Your task to perform on an android device: toggle notification dots Image 0: 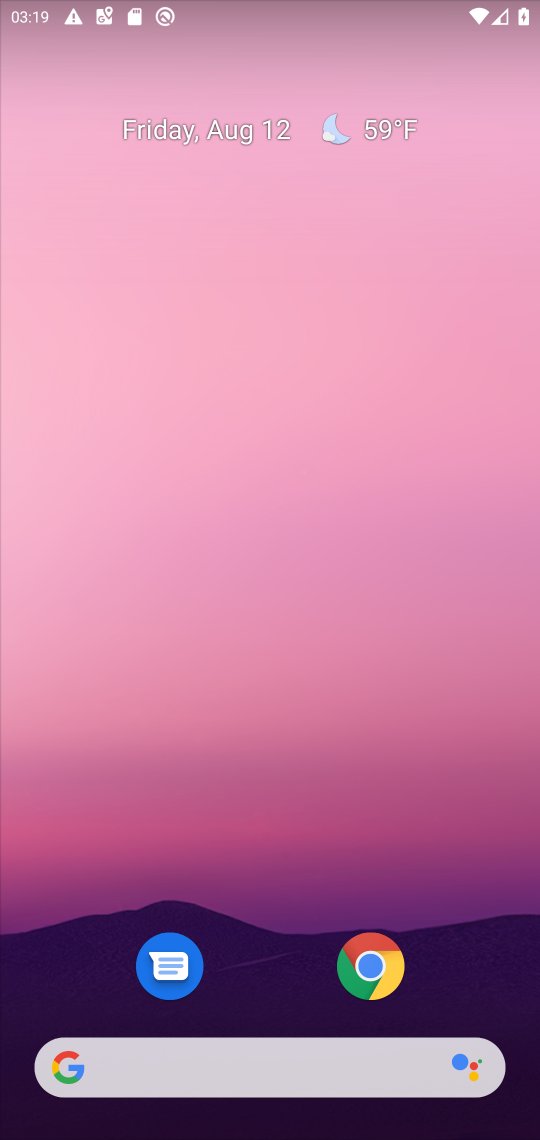
Step 0: drag from (280, 862) to (329, 14)
Your task to perform on an android device: toggle notification dots Image 1: 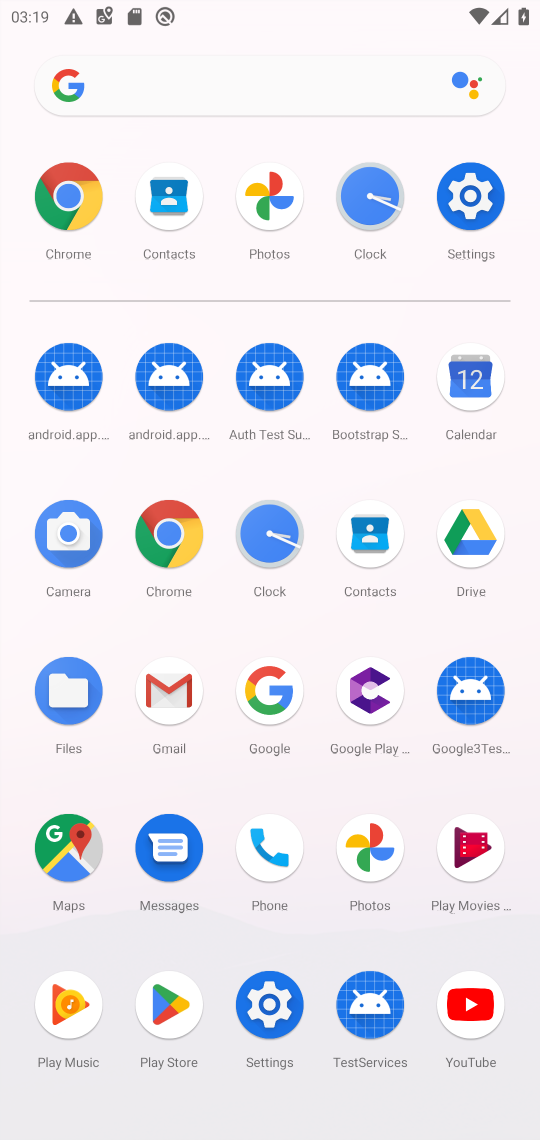
Step 1: click (284, 1008)
Your task to perform on an android device: toggle notification dots Image 2: 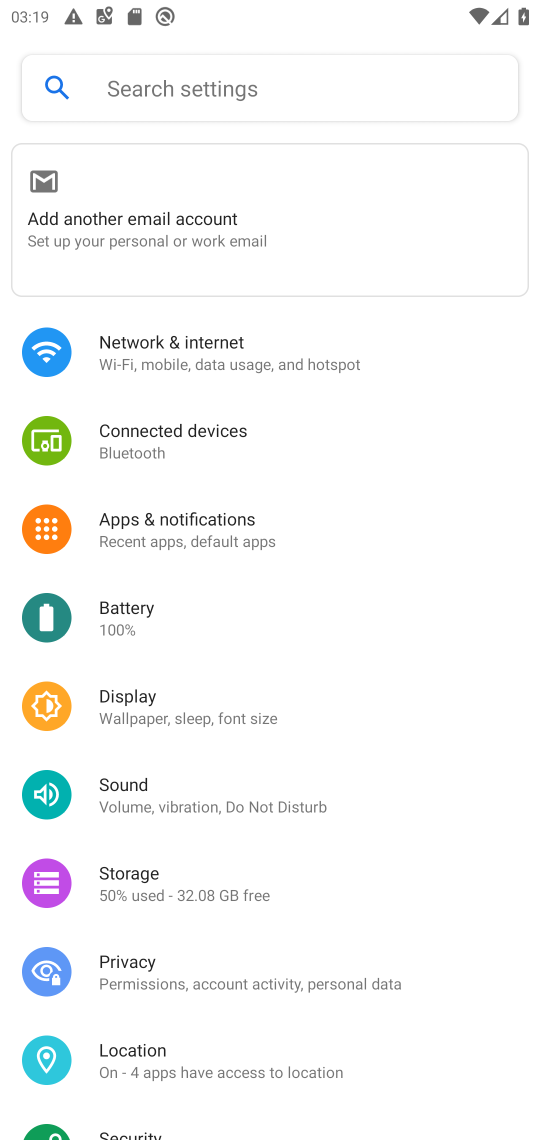
Step 2: click (212, 544)
Your task to perform on an android device: toggle notification dots Image 3: 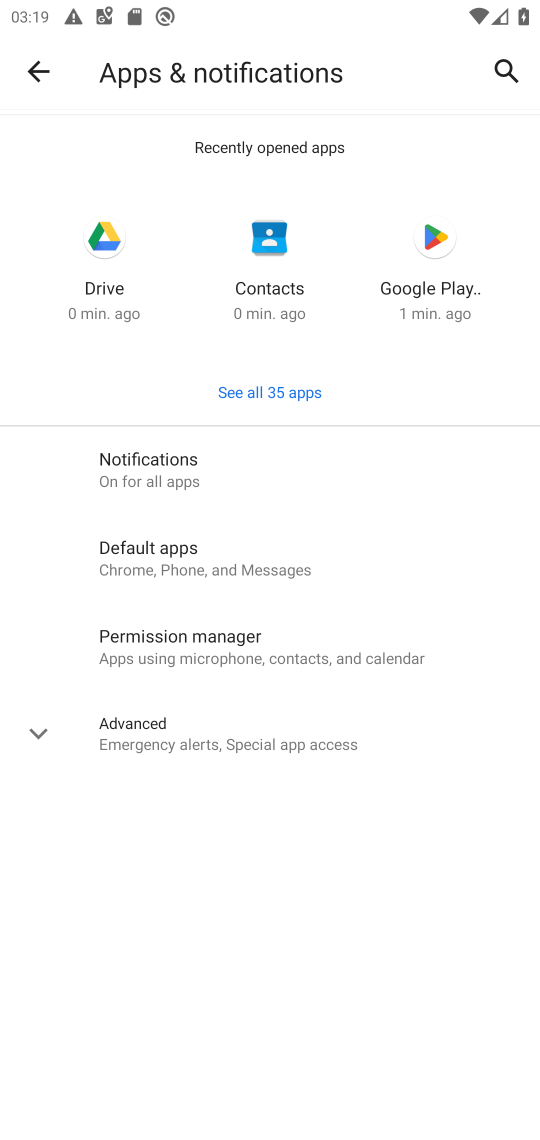
Step 3: click (161, 473)
Your task to perform on an android device: toggle notification dots Image 4: 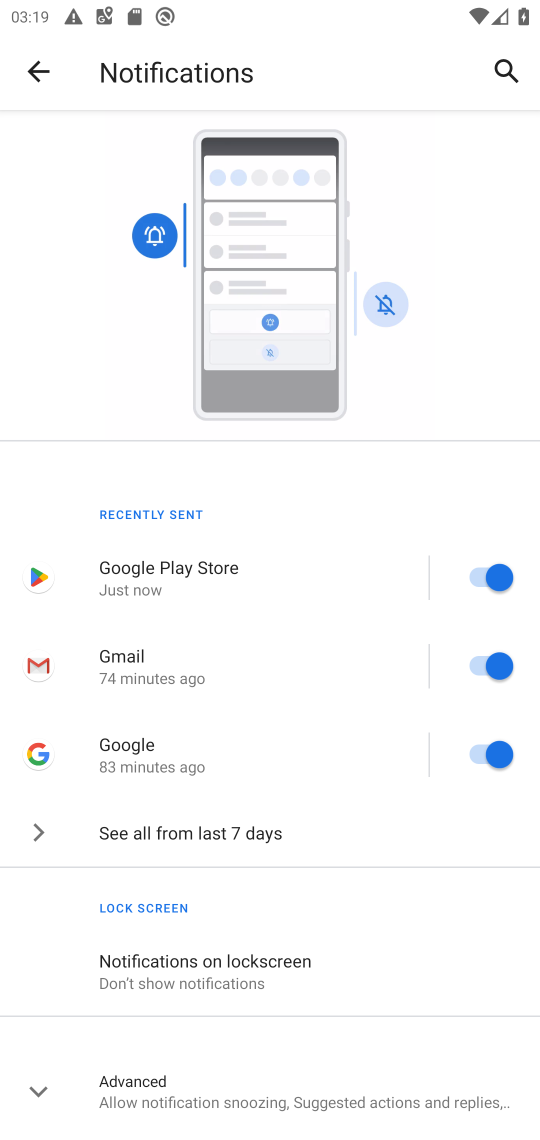
Step 4: click (164, 1075)
Your task to perform on an android device: toggle notification dots Image 5: 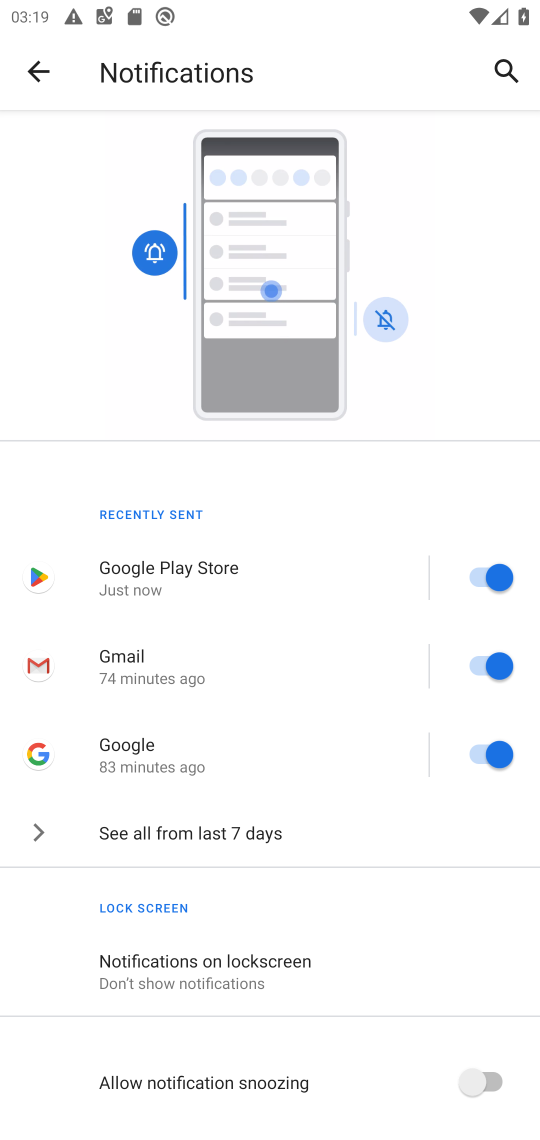
Step 5: drag from (286, 1044) to (328, 315)
Your task to perform on an android device: toggle notification dots Image 6: 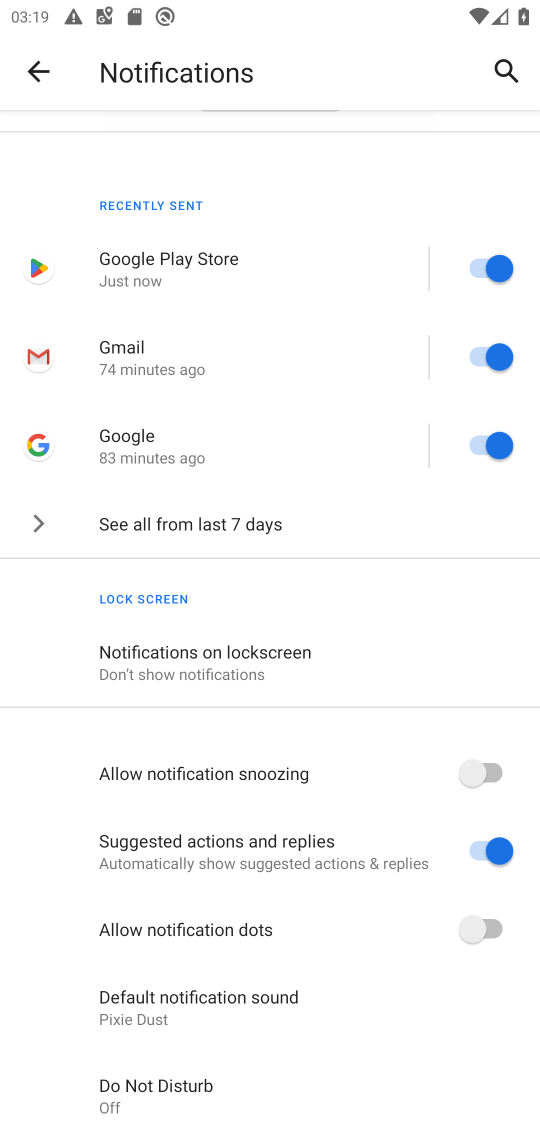
Step 6: click (486, 919)
Your task to perform on an android device: toggle notification dots Image 7: 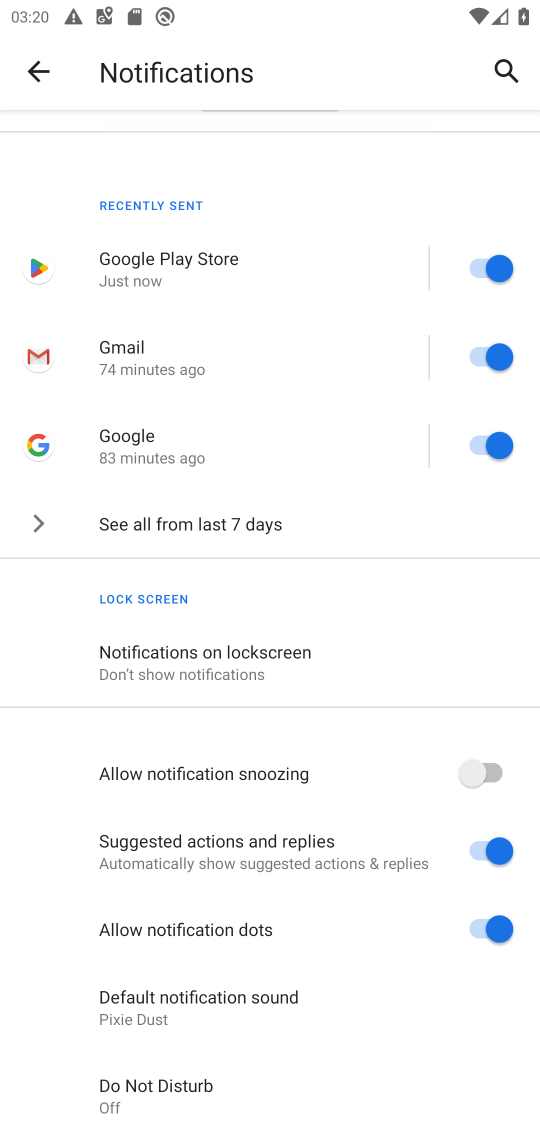
Step 7: task complete